Your task to perform on an android device: turn off location Image 0: 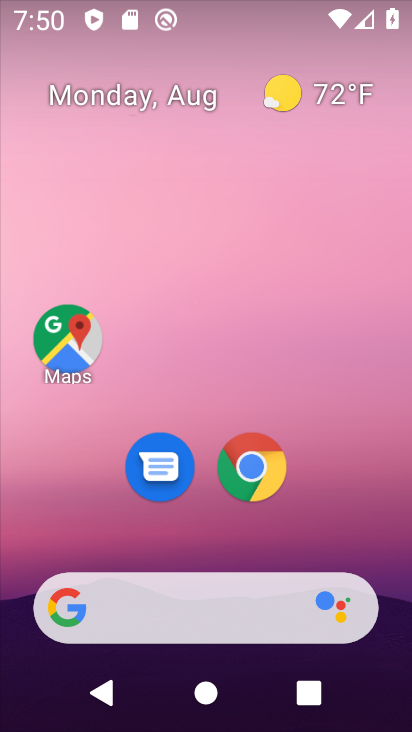
Step 0: press home button
Your task to perform on an android device: turn off location Image 1: 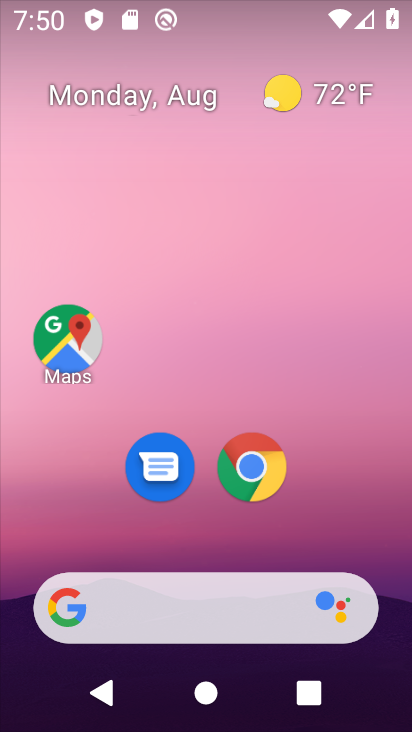
Step 1: drag from (343, 520) to (382, 147)
Your task to perform on an android device: turn off location Image 2: 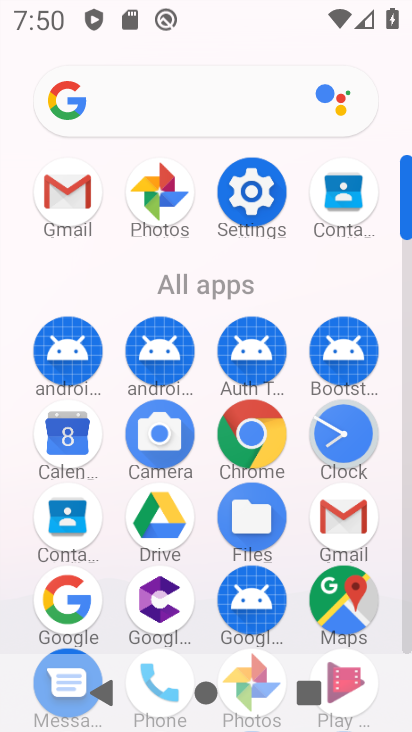
Step 2: click (260, 211)
Your task to perform on an android device: turn off location Image 3: 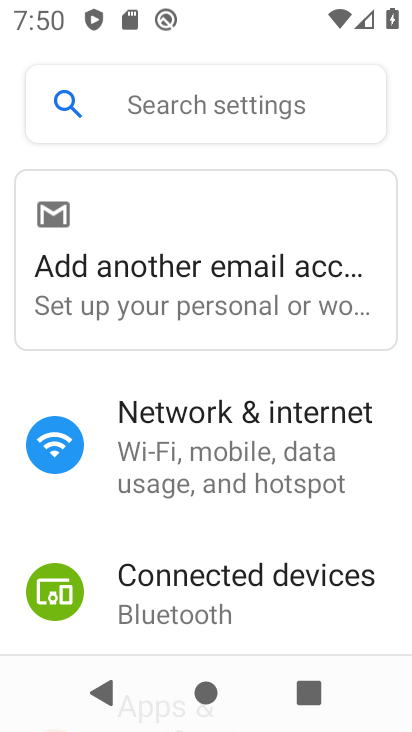
Step 3: drag from (367, 523) to (377, 430)
Your task to perform on an android device: turn off location Image 4: 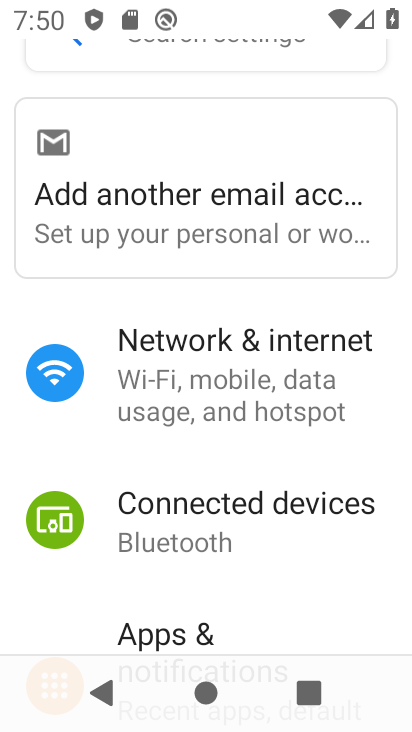
Step 4: drag from (364, 564) to (376, 449)
Your task to perform on an android device: turn off location Image 5: 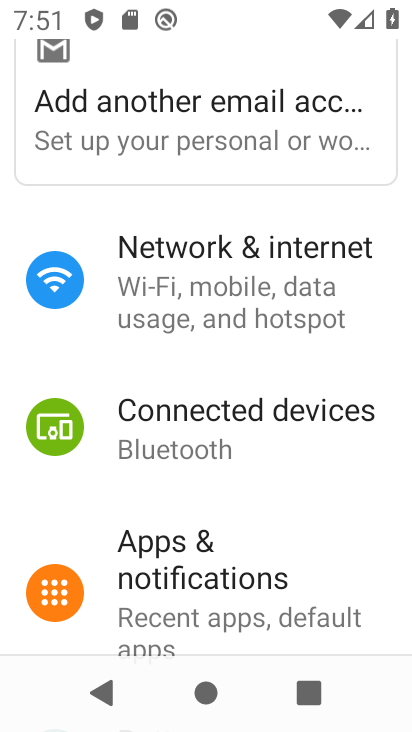
Step 5: drag from (358, 563) to (362, 468)
Your task to perform on an android device: turn off location Image 6: 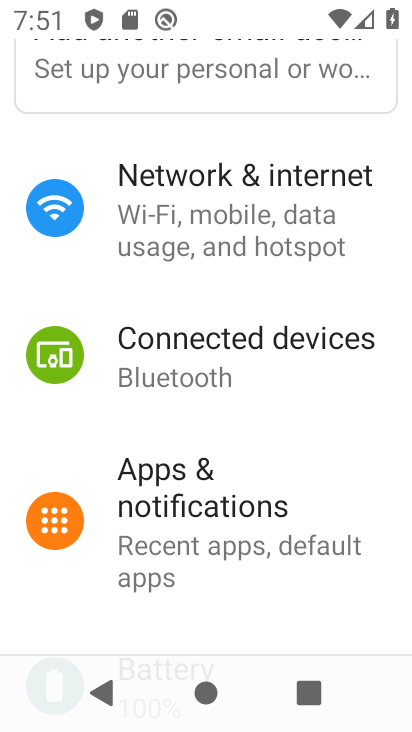
Step 6: drag from (356, 599) to (356, 462)
Your task to perform on an android device: turn off location Image 7: 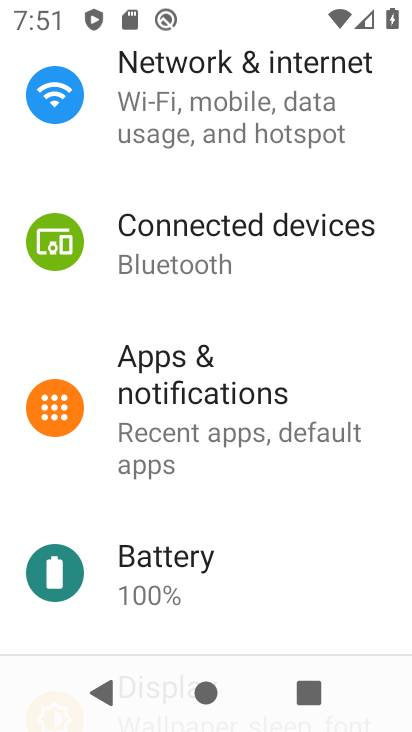
Step 7: drag from (346, 580) to (355, 458)
Your task to perform on an android device: turn off location Image 8: 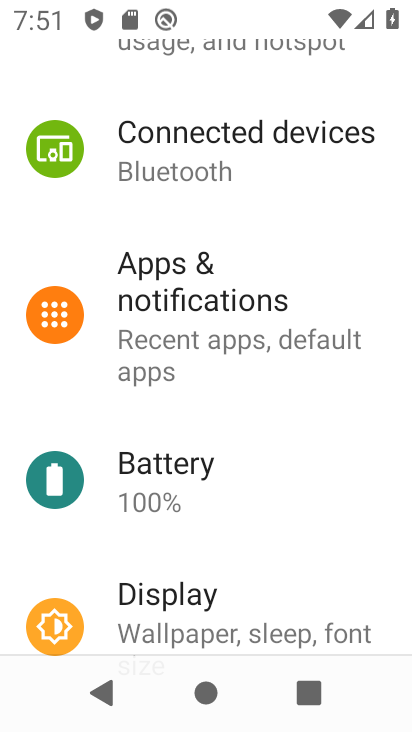
Step 8: drag from (340, 562) to (342, 409)
Your task to perform on an android device: turn off location Image 9: 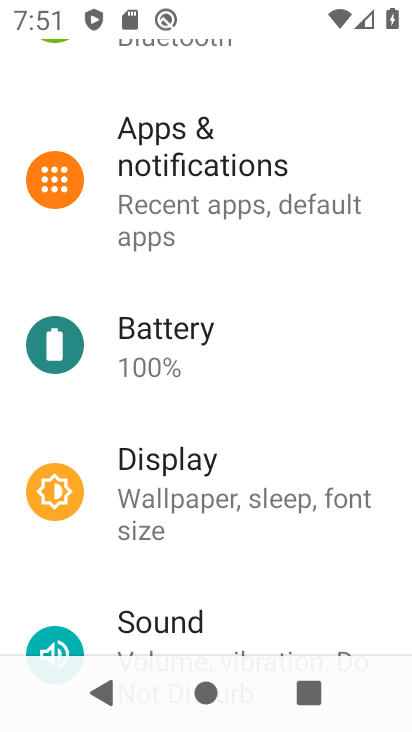
Step 9: drag from (341, 544) to (341, 409)
Your task to perform on an android device: turn off location Image 10: 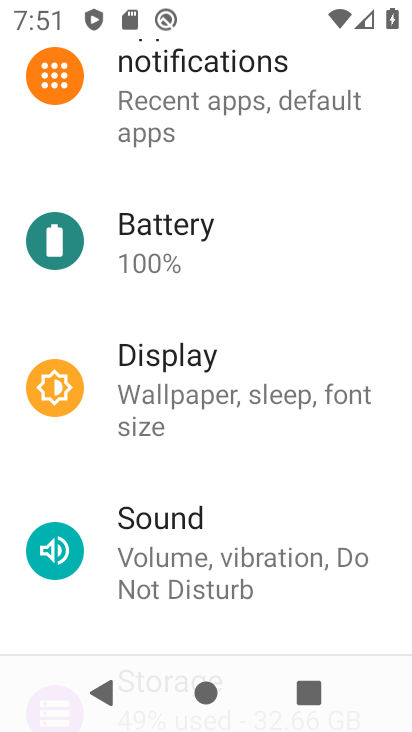
Step 10: drag from (357, 599) to (349, 477)
Your task to perform on an android device: turn off location Image 11: 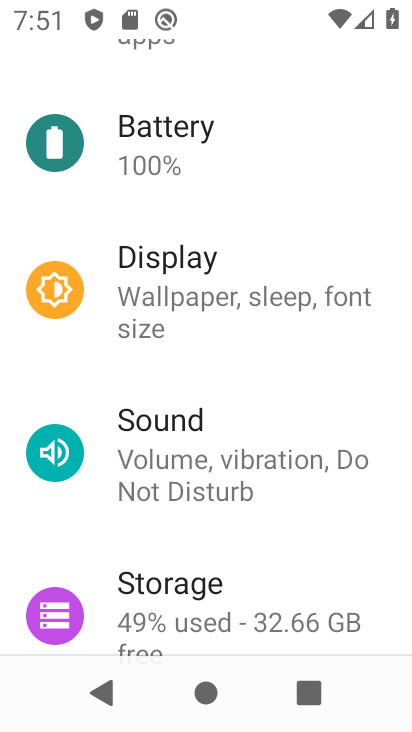
Step 11: drag from (348, 590) to (356, 448)
Your task to perform on an android device: turn off location Image 12: 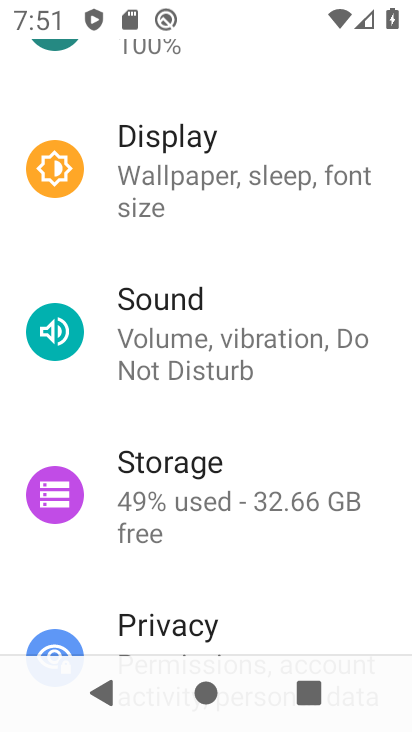
Step 12: drag from (348, 592) to (346, 480)
Your task to perform on an android device: turn off location Image 13: 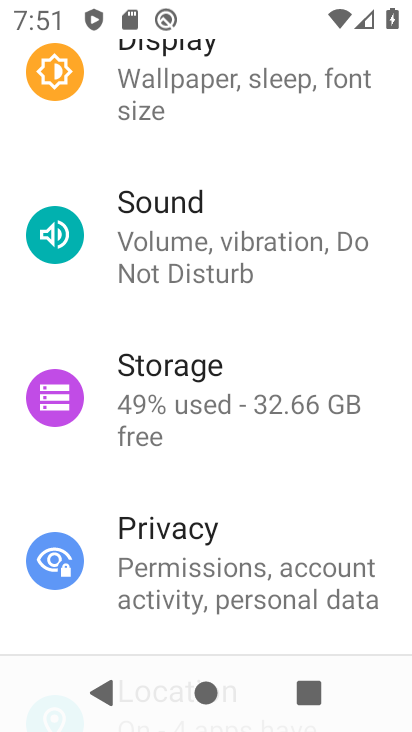
Step 13: drag from (383, 626) to (385, 478)
Your task to perform on an android device: turn off location Image 14: 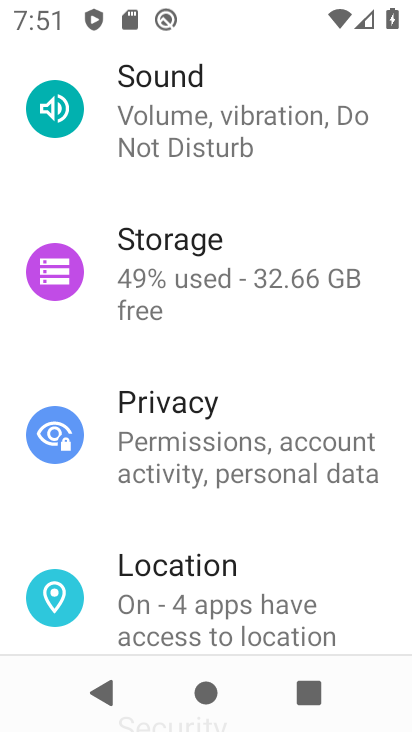
Step 14: drag from (366, 613) to (367, 489)
Your task to perform on an android device: turn off location Image 15: 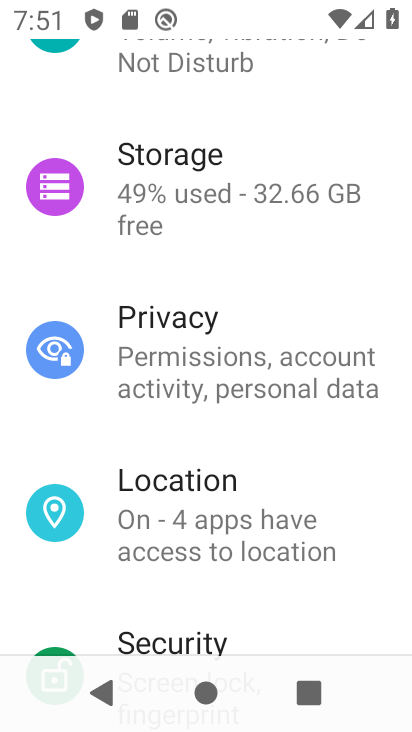
Step 15: click (357, 506)
Your task to perform on an android device: turn off location Image 16: 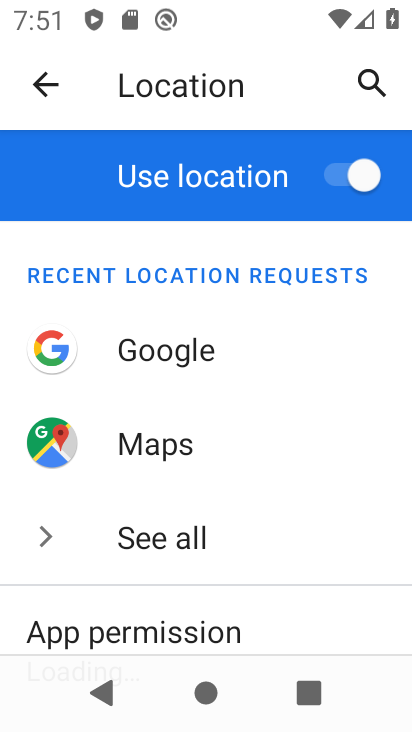
Step 16: click (353, 181)
Your task to perform on an android device: turn off location Image 17: 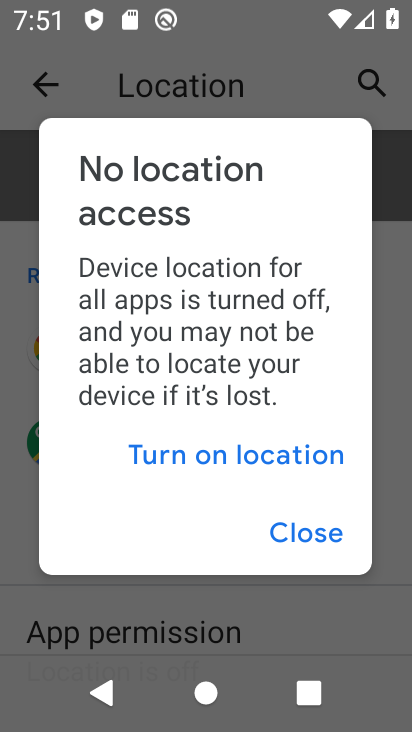
Step 17: task complete